Your task to perform on an android device: When is my next appointment? Image 0: 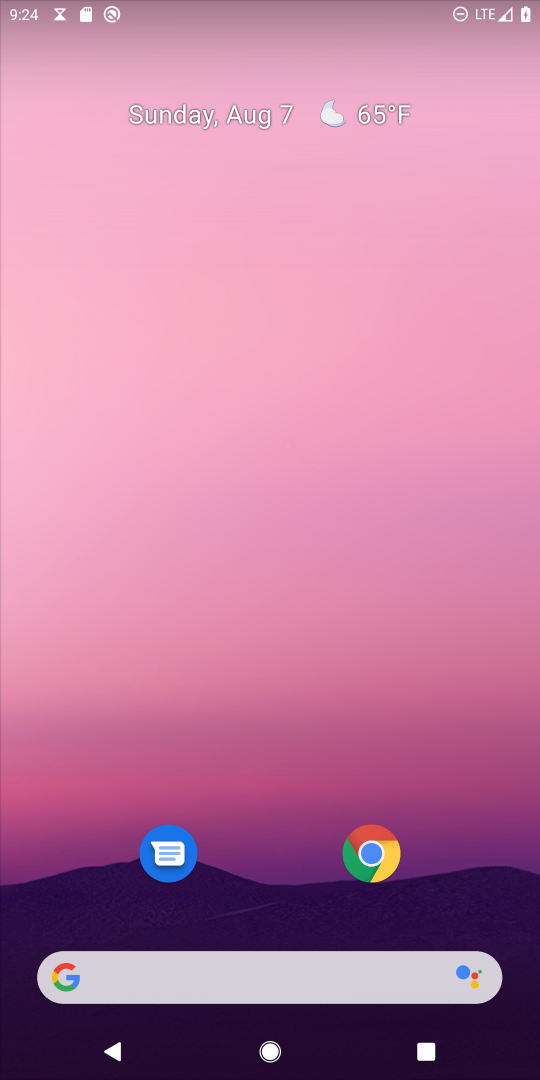
Step 0: drag from (293, 928) to (280, 268)
Your task to perform on an android device: When is my next appointment? Image 1: 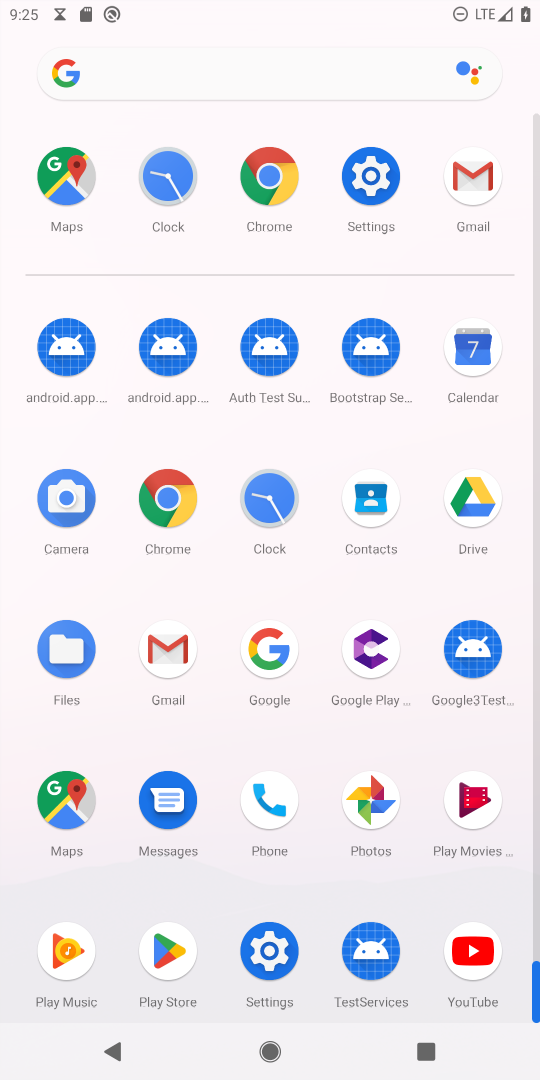
Step 1: click (466, 339)
Your task to perform on an android device: When is my next appointment? Image 2: 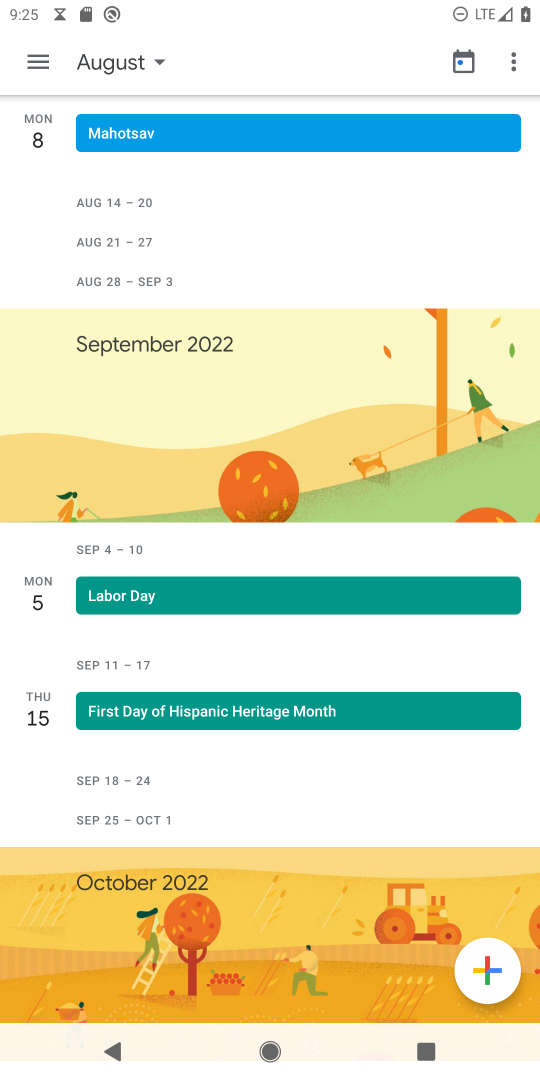
Step 2: click (38, 60)
Your task to perform on an android device: When is my next appointment? Image 3: 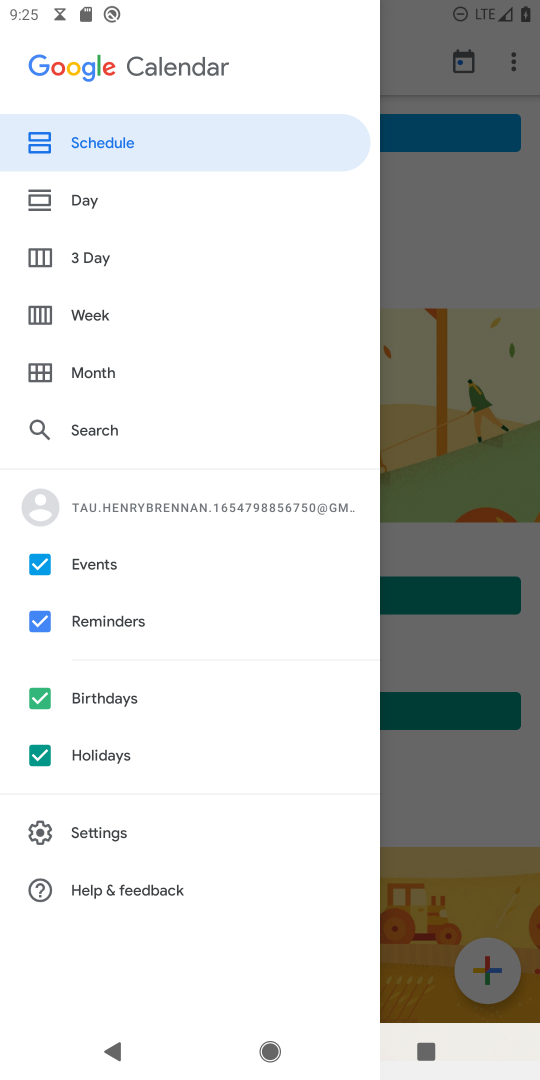
Step 3: click (97, 365)
Your task to perform on an android device: When is my next appointment? Image 4: 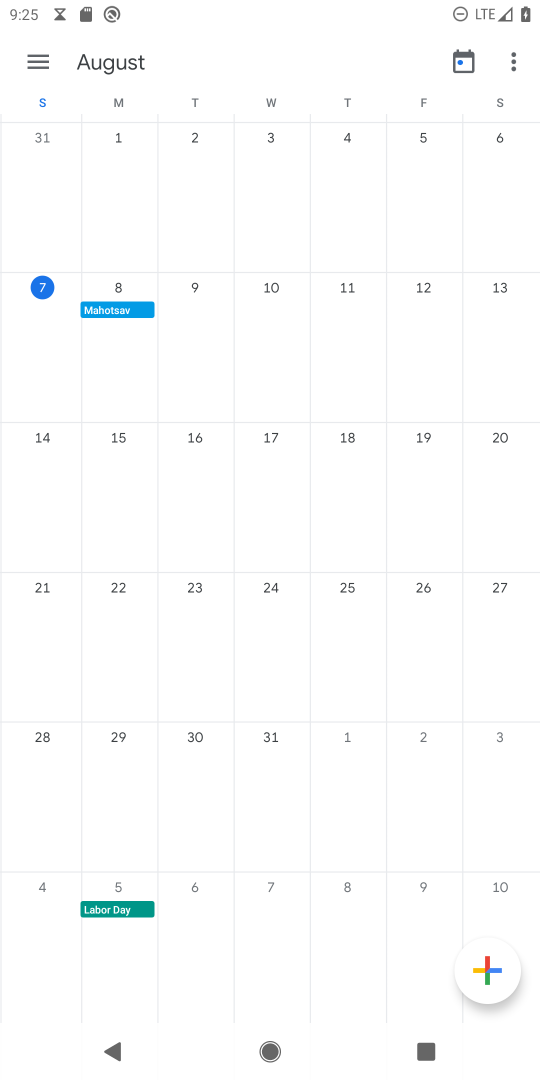
Step 4: click (190, 309)
Your task to perform on an android device: When is my next appointment? Image 5: 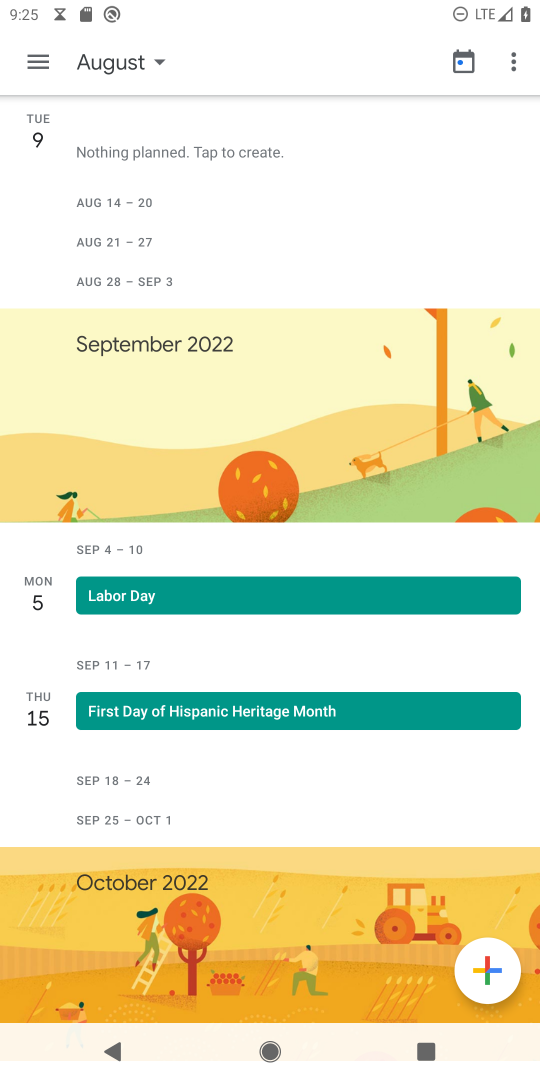
Step 5: task complete